Your task to perform on an android device: turn on data saver in the chrome app Image 0: 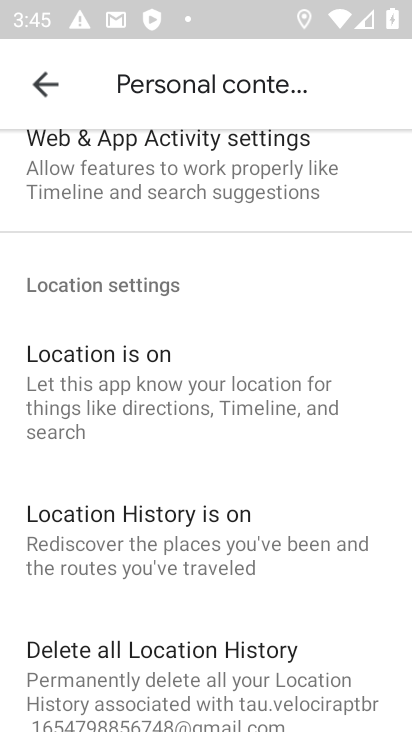
Step 0: press home button
Your task to perform on an android device: turn on data saver in the chrome app Image 1: 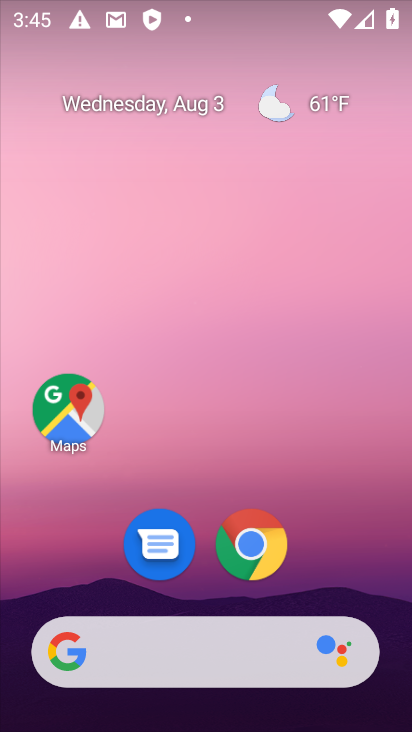
Step 1: drag from (313, 557) to (353, 78)
Your task to perform on an android device: turn on data saver in the chrome app Image 2: 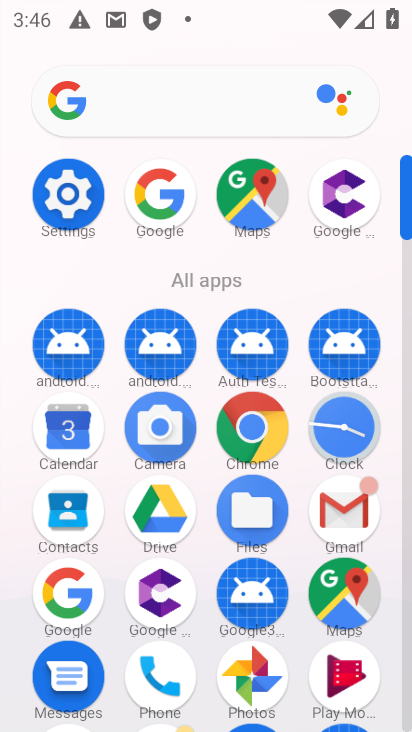
Step 2: click (257, 426)
Your task to perform on an android device: turn on data saver in the chrome app Image 3: 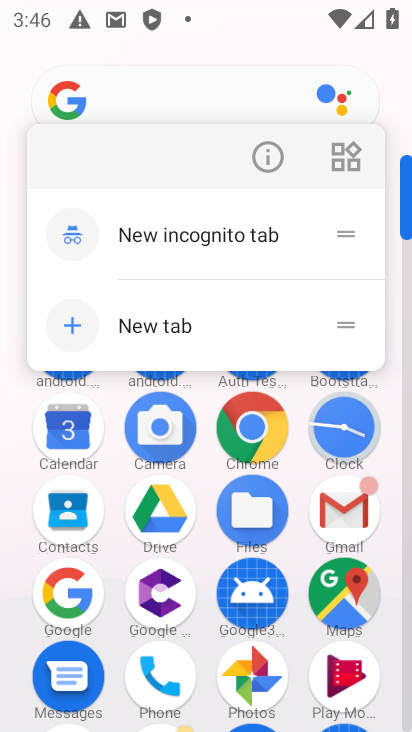
Step 3: click (244, 420)
Your task to perform on an android device: turn on data saver in the chrome app Image 4: 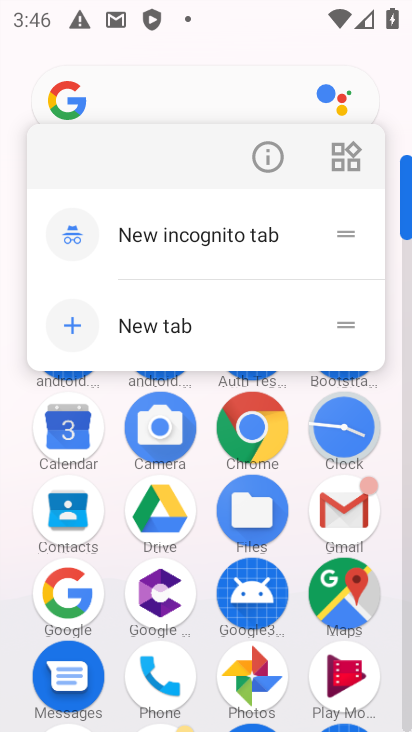
Step 4: click (271, 64)
Your task to perform on an android device: turn on data saver in the chrome app Image 5: 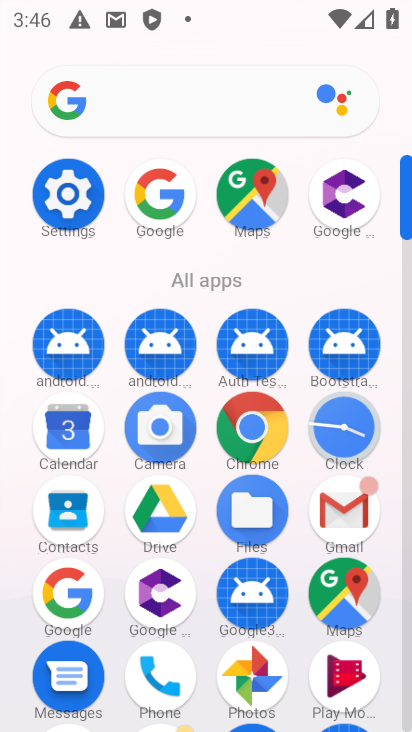
Step 5: click (239, 407)
Your task to perform on an android device: turn on data saver in the chrome app Image 6: 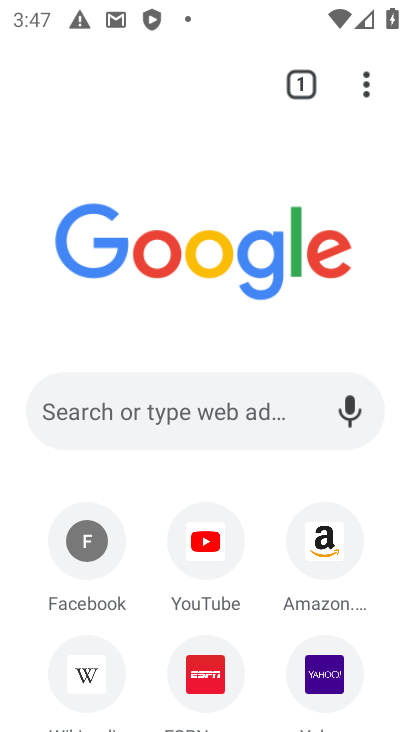
Step 6: drag from (369, 80) to (115, 599)
Your task to perform on an android device: turn on data saver in the chrome app Image 7: 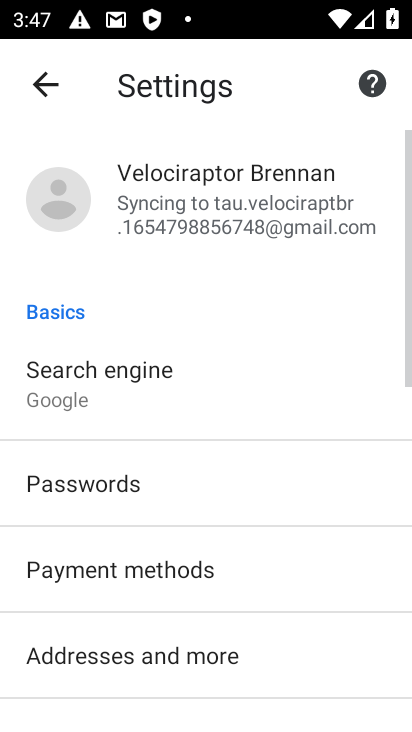
Step 7: drag from (284, 639) to (277, 321)
Your task to perform on an android device: turn on data saver in the chrome app Image 8: 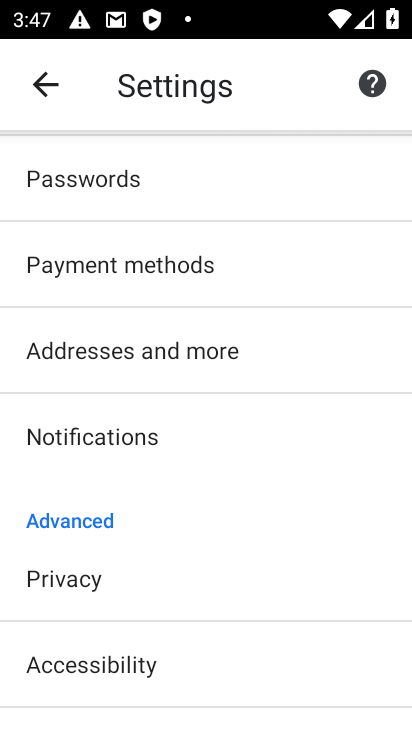
Step 8: drag from (261, 673) to (268, 335)
Your task to perform on an android device: turn on data saver in the chrome app Image 9: 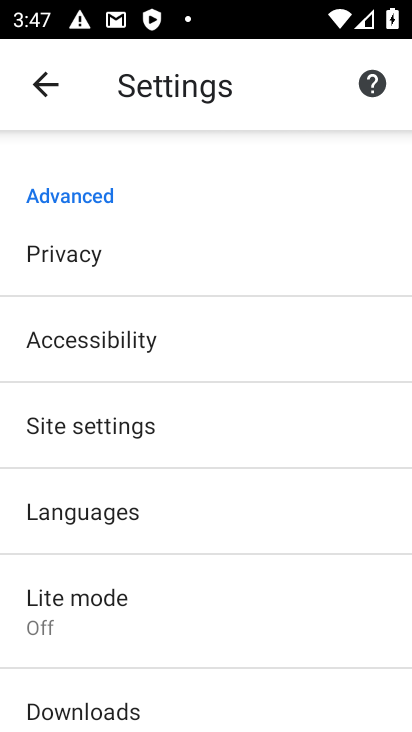
Step 9: click (117, 587)
Your task to perform on an android device: turn on data saver in the chrome app Image 10: 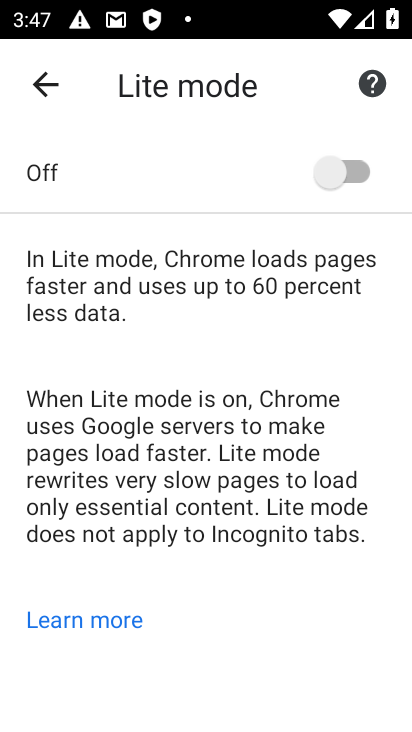
Step 10: click (327, 170)
Your task to perform on an android device: turn on data saver in the chrome app Image 11: 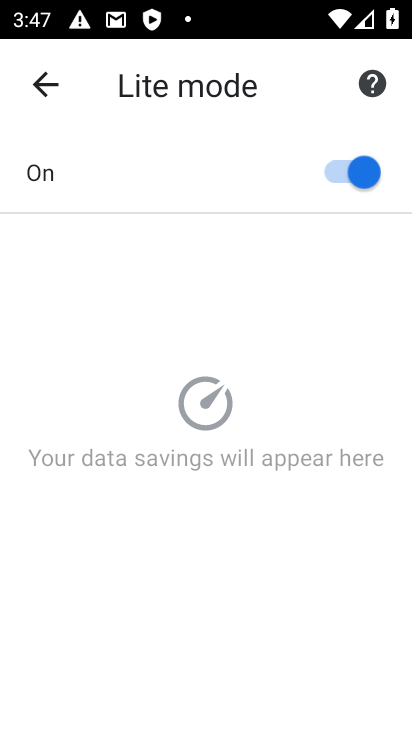
Step 11: task complete